Your task to perform on an android device: Go to accessibility settings Image 0: 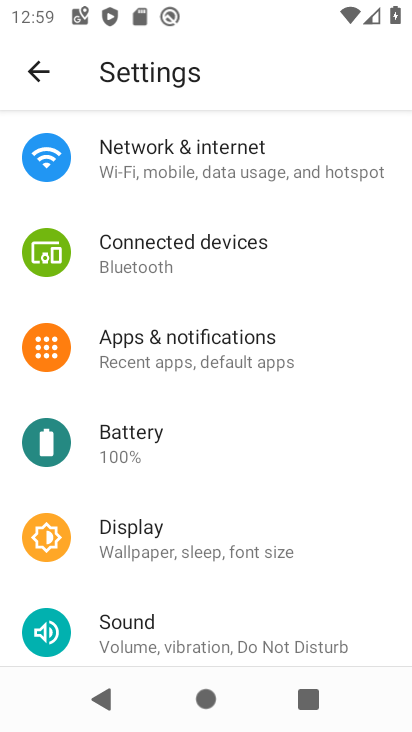
Step 0: drag from (260, 546) to (279, 197)
Your task to perform on an android device: Go to accessibility settings Image 1: 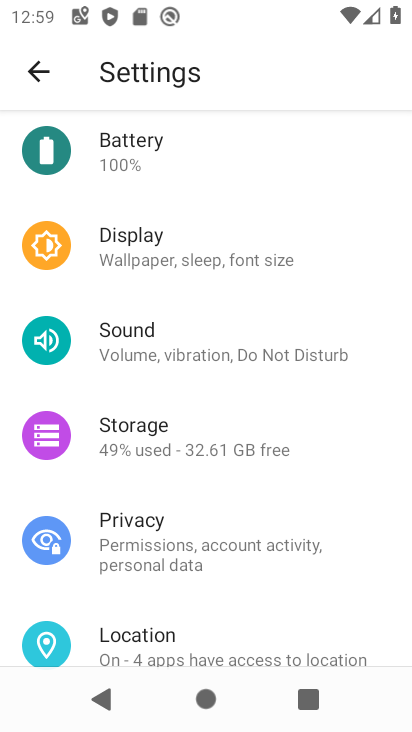
Step 1: drag from (207, 600) to (209, 252)
Your task to perform on an android device: Go to accessibility settings Image 2: 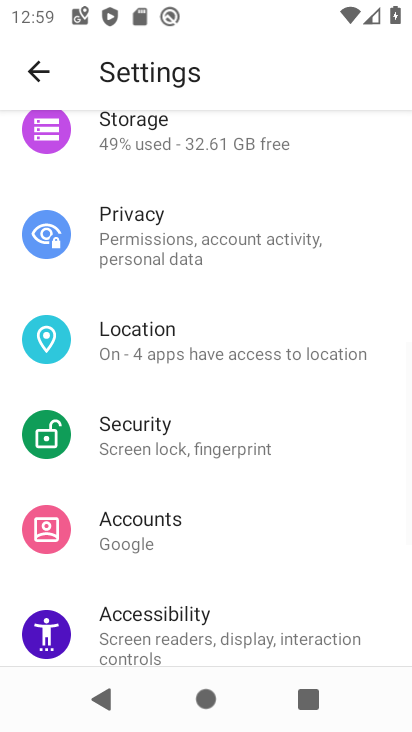
Step 2: drag from (221, 590) to (250, 366)
Your task to perform on an android device: Go to accessibility settings Image 3: 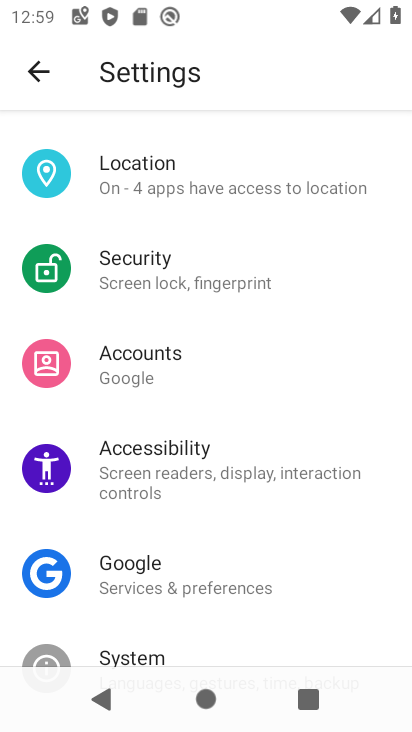
Step 3: click (229, 460)
Your task to perform on an android device: Go to accessibility settings Image 4: 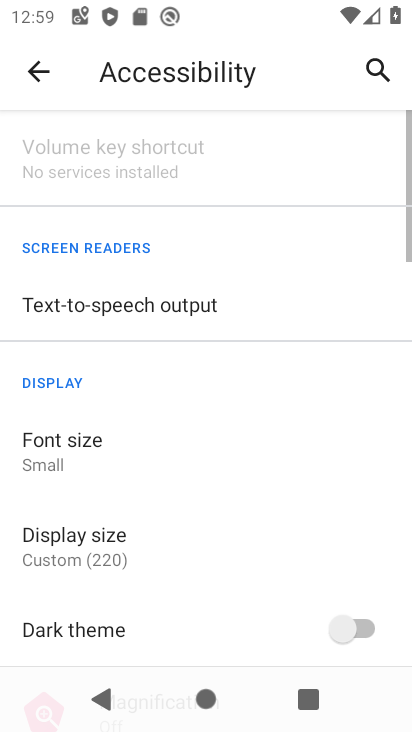
Step 4: task complete